Your task to perform on an android device: open sync settings in chrome Image 0: 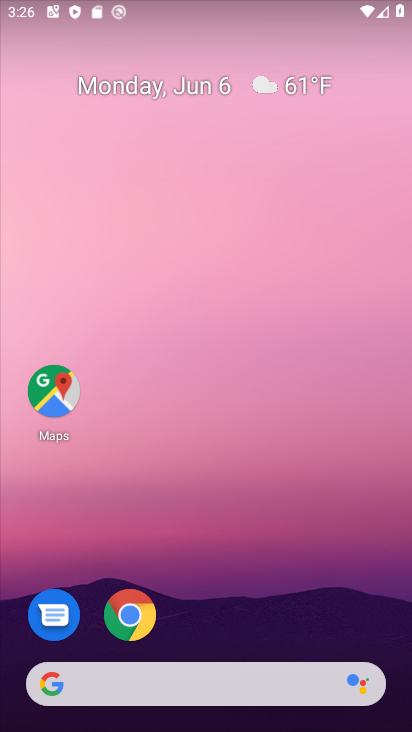
Step 0: click (131, 611)
Your task to perform on an android device: open sync settings in chrome Image 1: 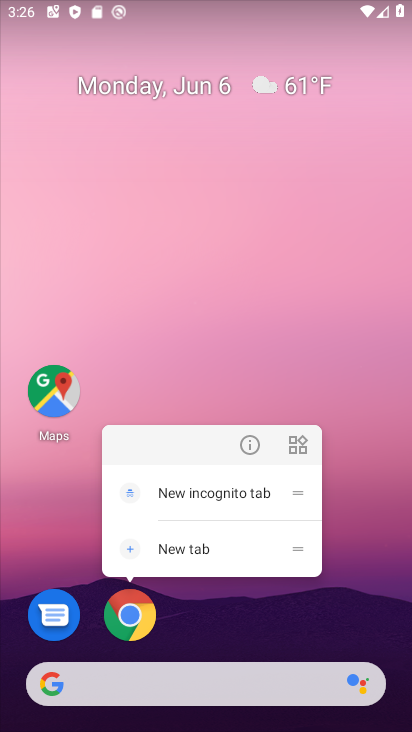
Step 1: click (131, 616)
Your task to perform on an android device: open sync settings in chrome Image 2: 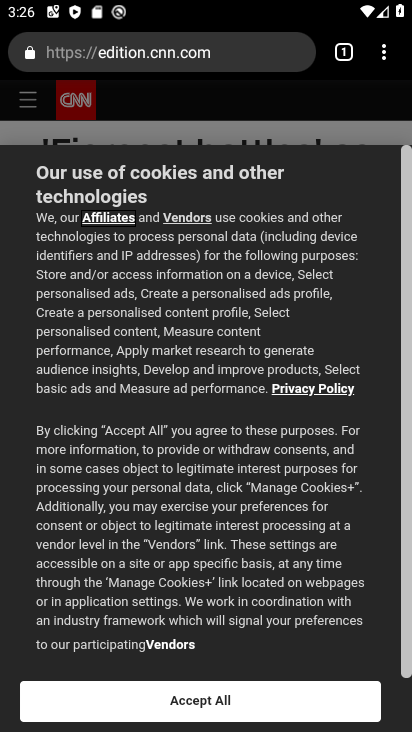
Step 2: click (387, 53)
Your task to perform on an android device: open sync settings in chrome Image 3: 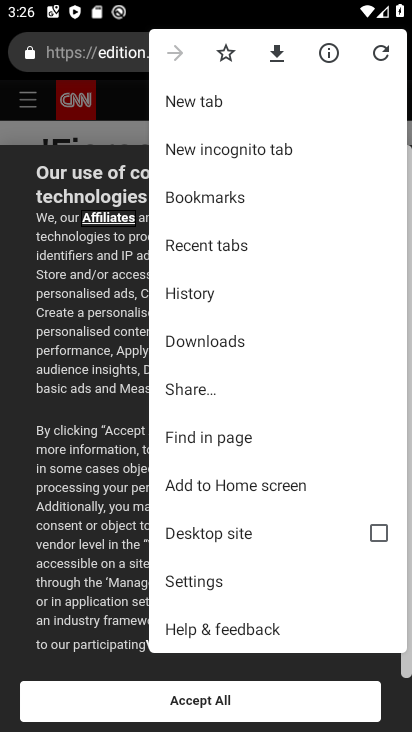
Step 3: click (198, 582)
Your task to perform on an android device: open sync settings in chrome Image 4: 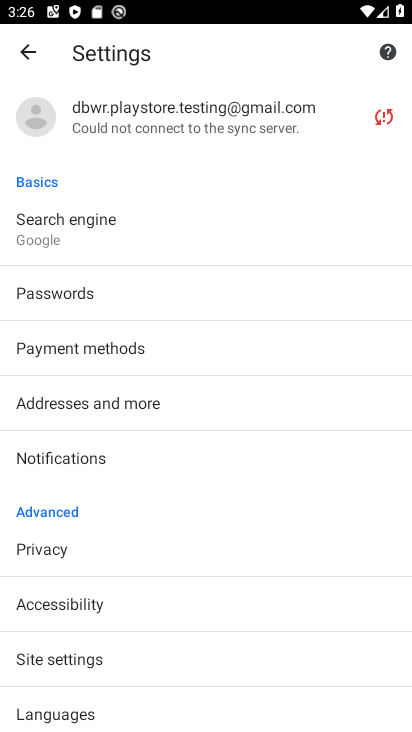
Step 4: click (126, 107)
Your task to perform on an android device: open sync settings in chrome Image 5: 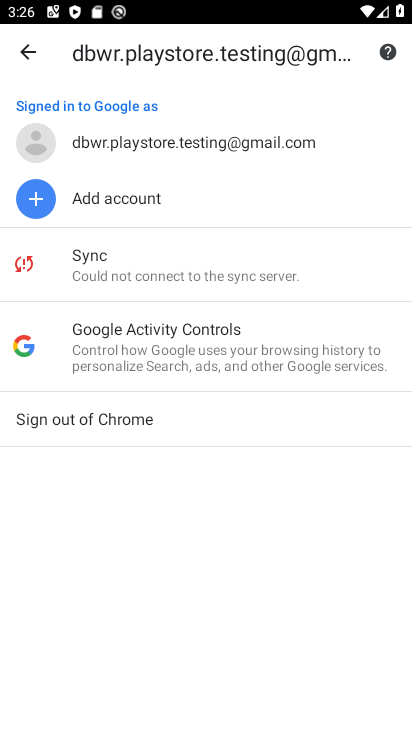
Step 5: click (94, 248)
Your task to perform on an android device: open sync settings in chrome Image 6: 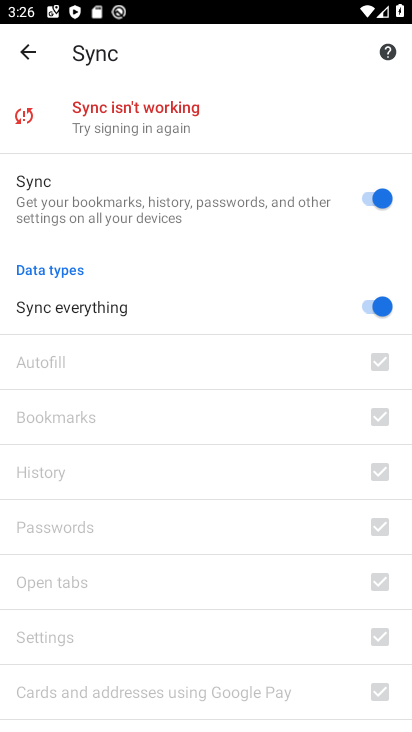
Step 6: task complete